Your task to perform on an android device: Is it going to rain this weekend? Image 0: 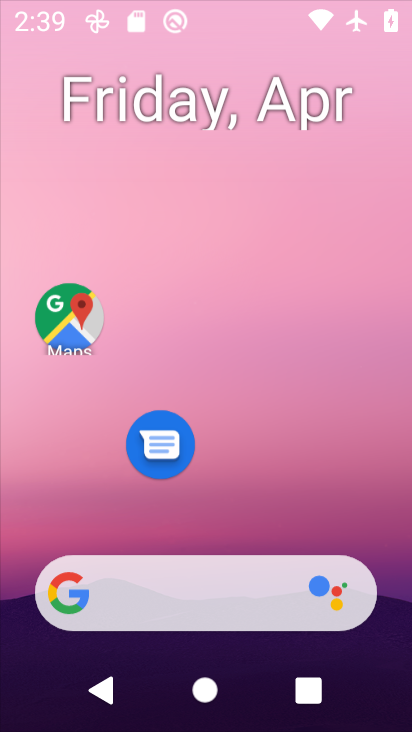
Step 0: drag from (304, 504) to (290, 132)
Your task to perform on an android device: Is it going to rain this weekend? Image 1: 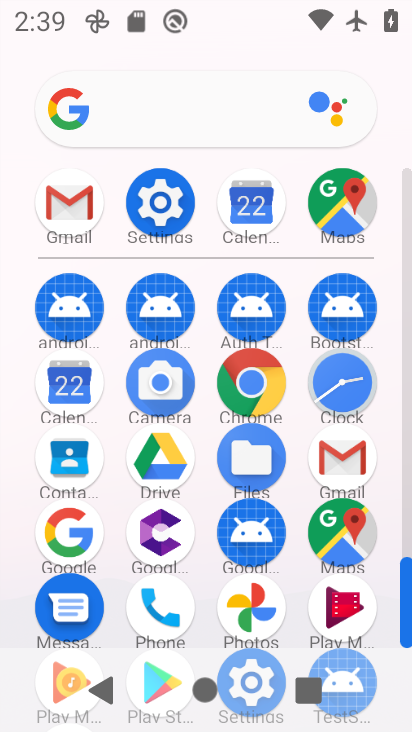
Step 1: click (168, 124)
Your task to perform on an android device: Is it going to rain this weekend? Image 2: 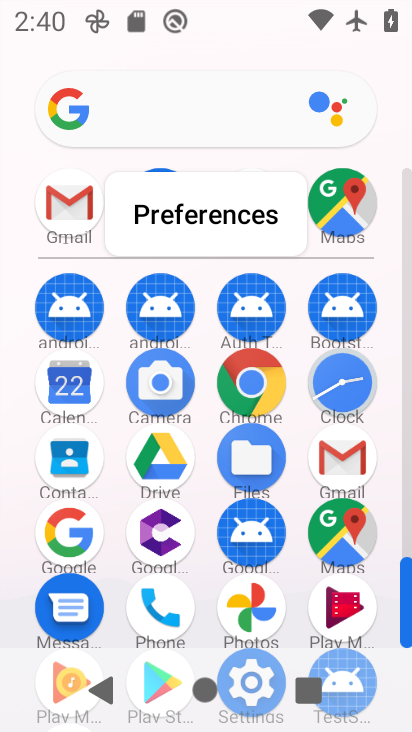
Step 2: click (92, 123)
Your task to perform on an android device: Is it going to rain this weekend? Image 3: 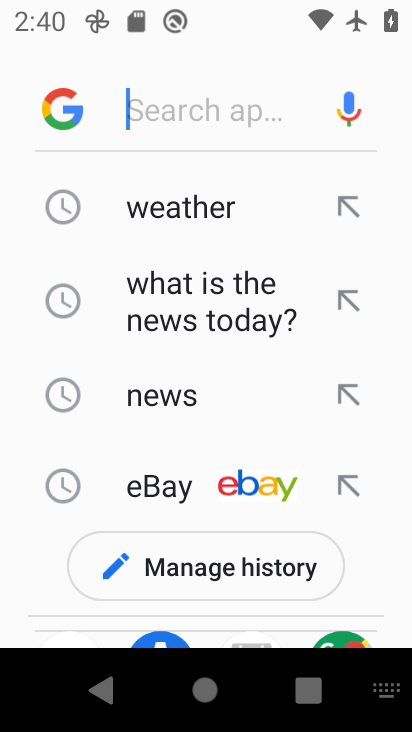
Step 3: type "is it going to rain this weekend"
Your task to perform on an android device: Is it going to rain this weekend? Image 4: 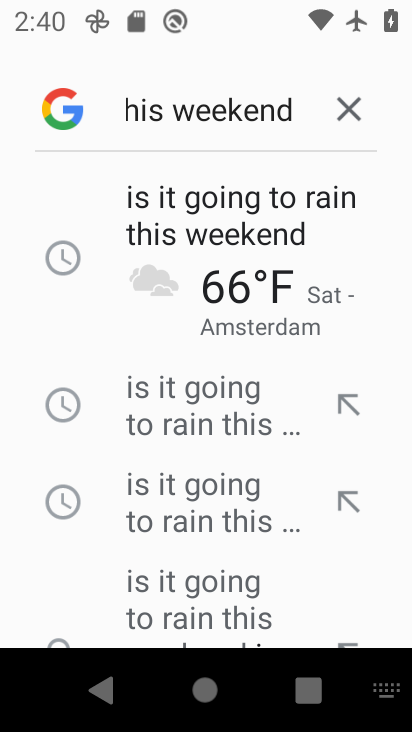
Step 4: click (148, 264)
Your task to perform on an android device: Is it going to rain this weekend? Image 5: 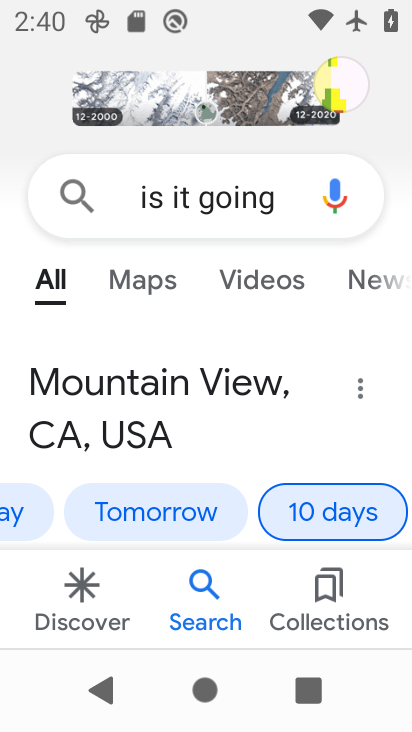
Step 5: task complete